Your task to perform on an android device: Open settings on Google Maps Image 0: 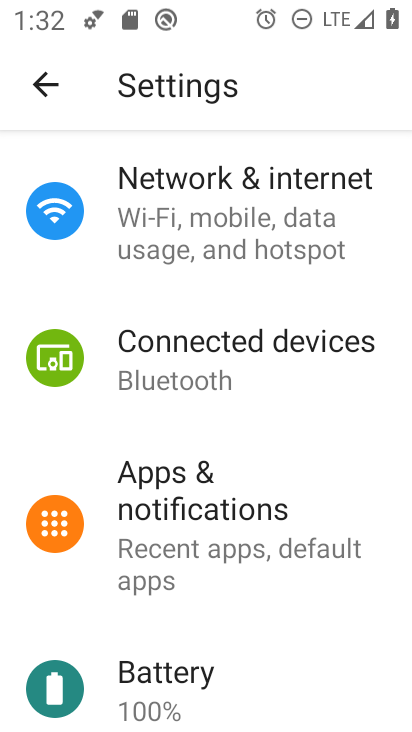
Step 0: press home button
Your task to perform on an android device: Open settings on Google Maps Image 1: 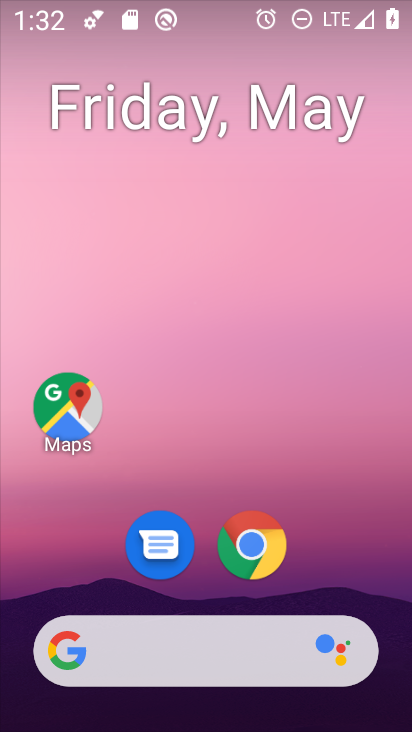
Step 1: drag from (313, 544) to (303, 213)
Your task to perform on an android device: Open settings on Google Maps Image 2: 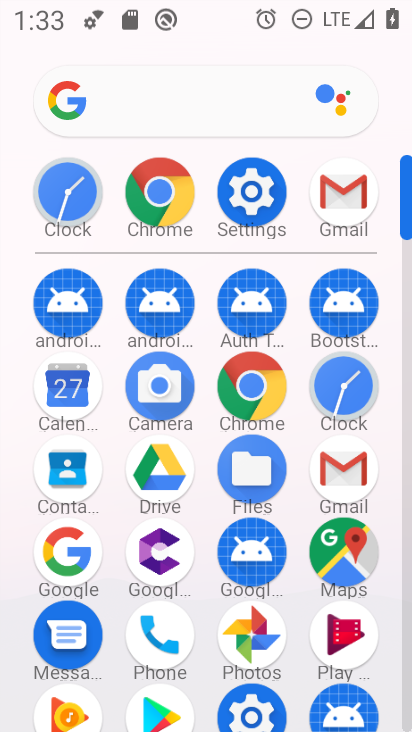
Step 2: drag from (206, 584) to (217, 341)
Your task to perform on an android device: Open settings on Google Maps Image 3: 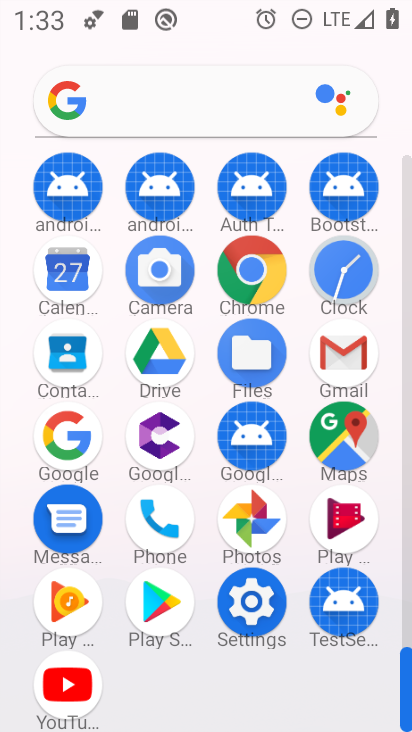
Step 3: drag from (203, 218) to (208, 367)
Your task to perform on an android device: Open settings on Google Maps Image 4: 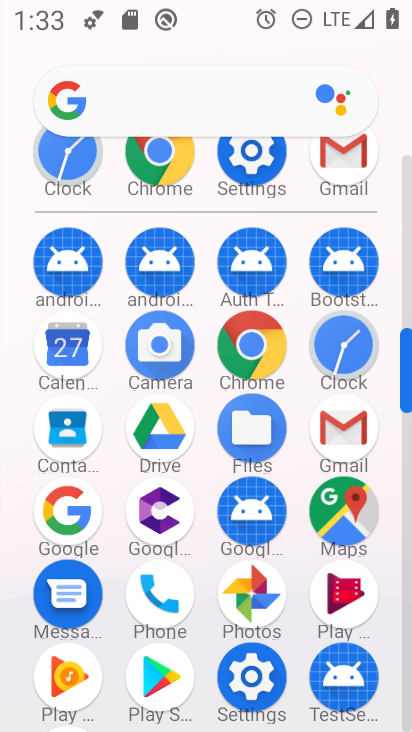
Step 4: click (58, 508)
Your task to perform on an android device: Open settings on Google Maps Image 5: 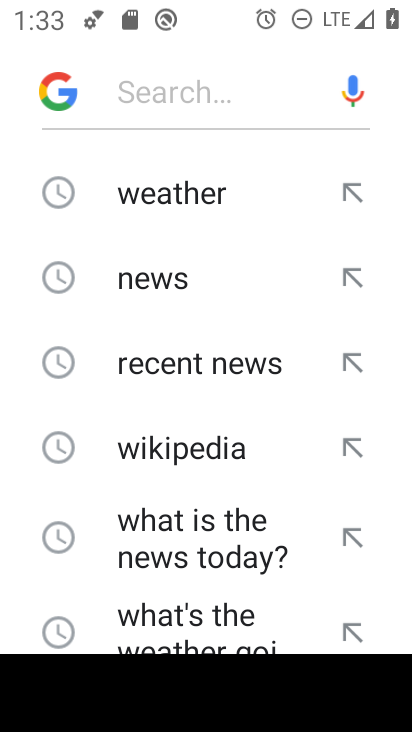
Step 5: click (59, 83)
Your task to perform on an android device: Open settings on Google Maps Image 6: 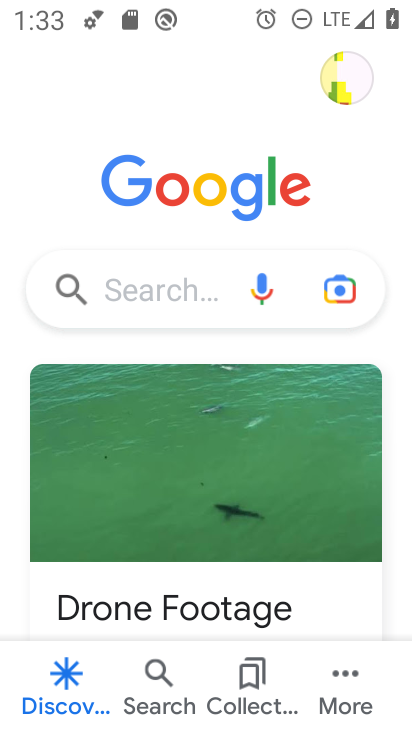
Step 6: click (344, 668)
Your task to perform on an android device: Open settings on Google Maps Image 7: 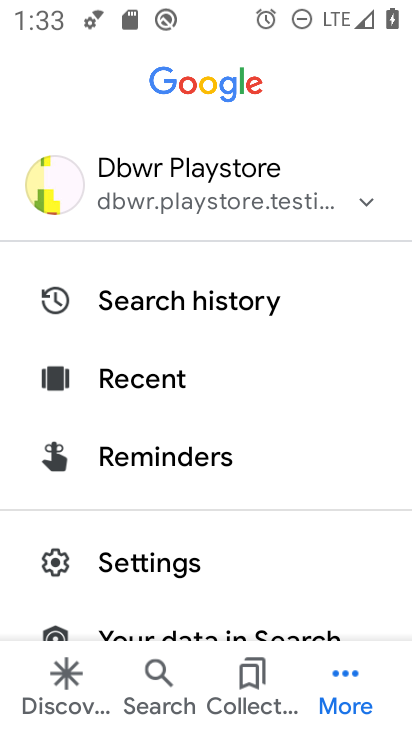
Step 7: click (196, 558)
Your task to perform on an android device: Open settings on Google Maps Image 8: 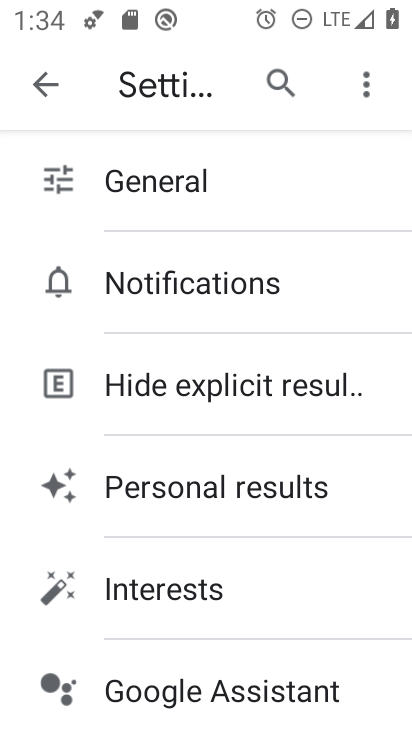
Step 8: task complete